Your task to perform on an android device: turn notification dots off Image 0: 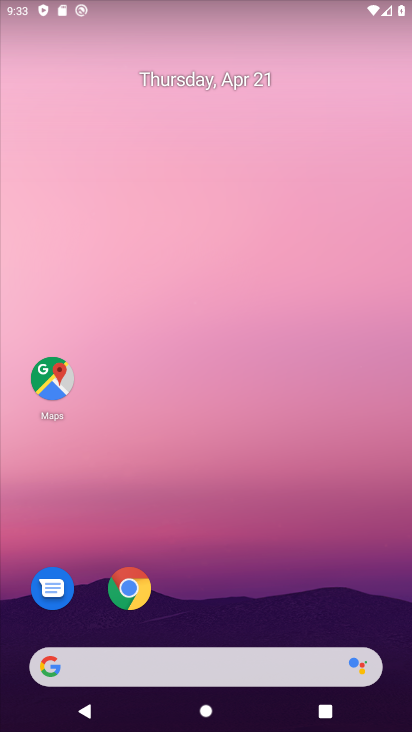
Step 0: drag from (342, 604) to (288, 0)
Your task to perform on an android device: turn notification dots off Image 1: 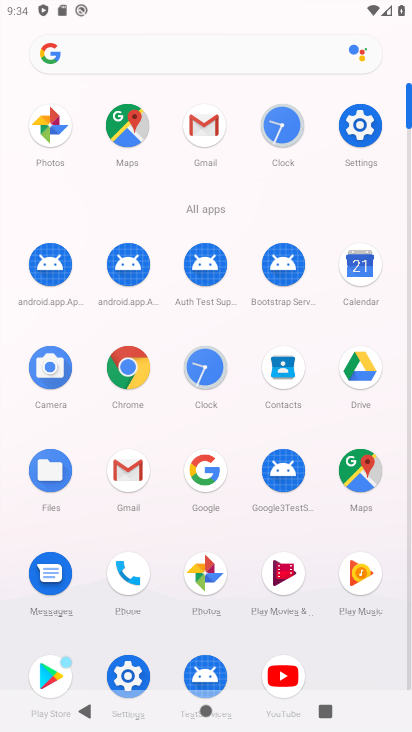
Step 1: click (125, 664)
Your task to perform on an android device: turn notification dots off Image 2: 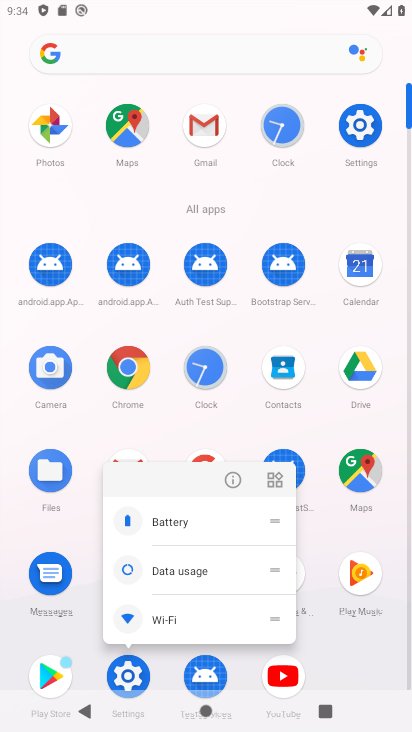
Step 2: drag from (374, 649) to (364, 296)
Your task to perform on an android device: turn notification dots off Image 3: 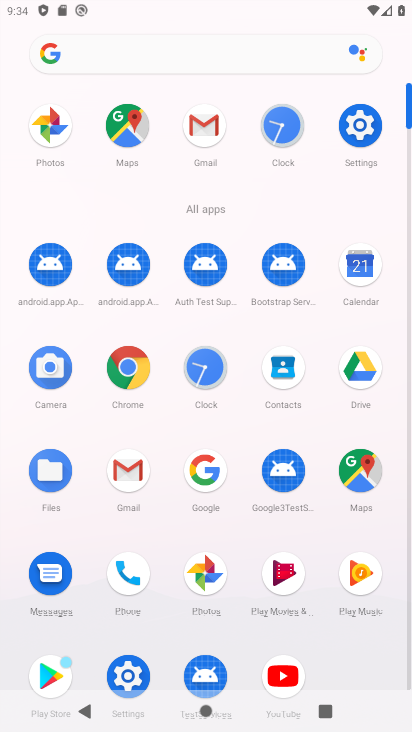
Step 3: click (123, 668)
Your task to perform on an android device: turn notification dots off Image 4: 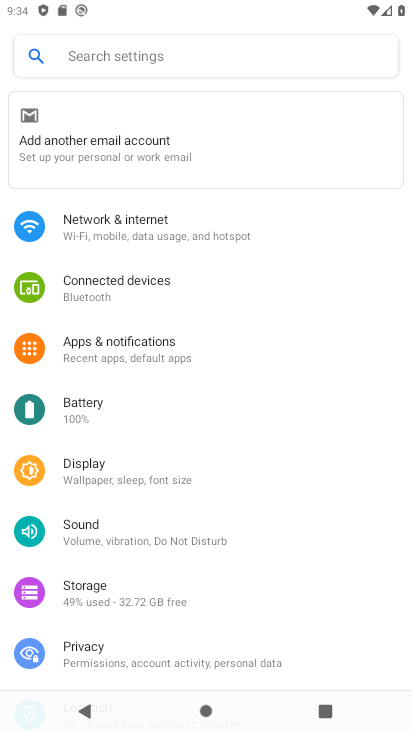
Step 4: click (151, 367)
Your task to perform on an android device: turn notification dots off Image 5: 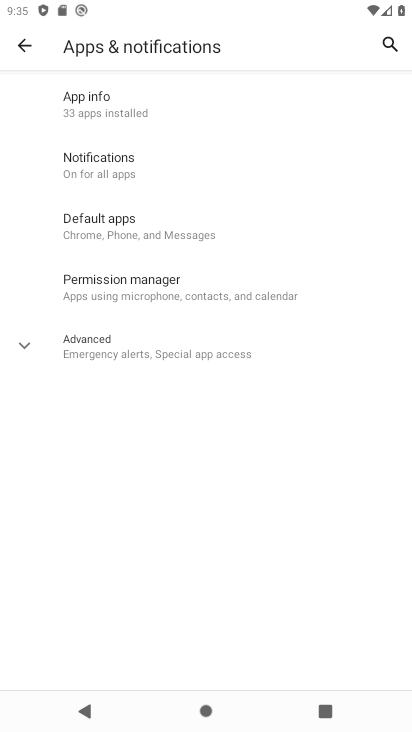
Step 5: click (135, 159)
Your task to perform on an android device: turn notification dots off Image 6: 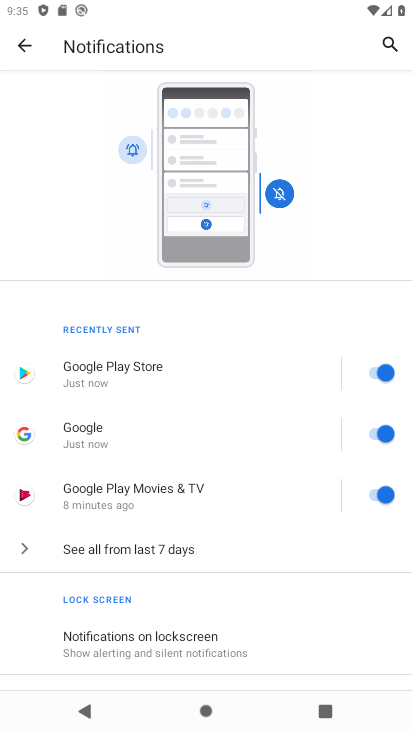
Step 6: drag from (124, 587) to (133, 224)
Your task to perform on an android device: turn notification dots off Image 7: 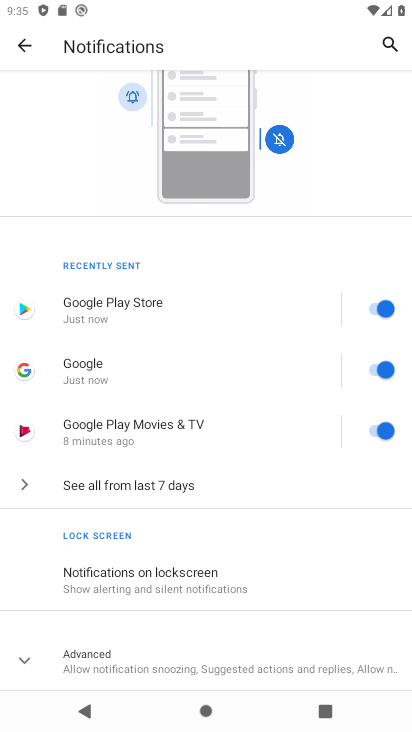
Step 7: click (149, 655)
Your task to perform on an android device: turn notification dots off Image 8: 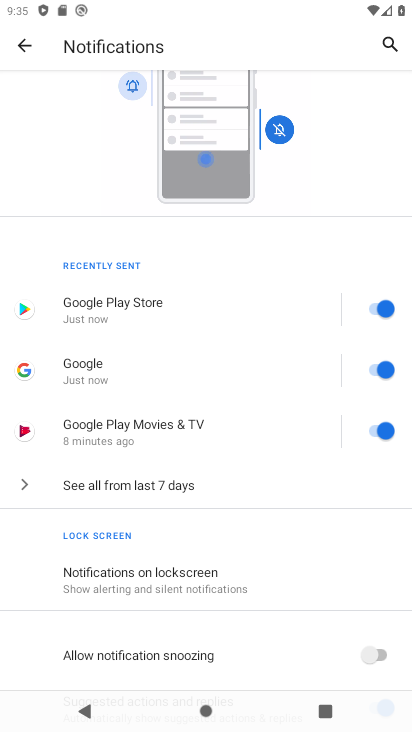
Step 8: drag from (182, 641) to (179, 165)
Your task to perform on an android device: turn notification dots off Image 9: 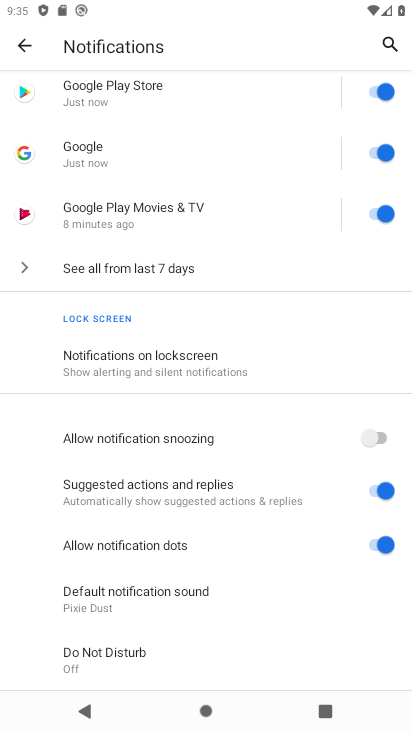
Step 9: click (360, 537)
Your task to perform on an android device: turn notification dots off Image 10: 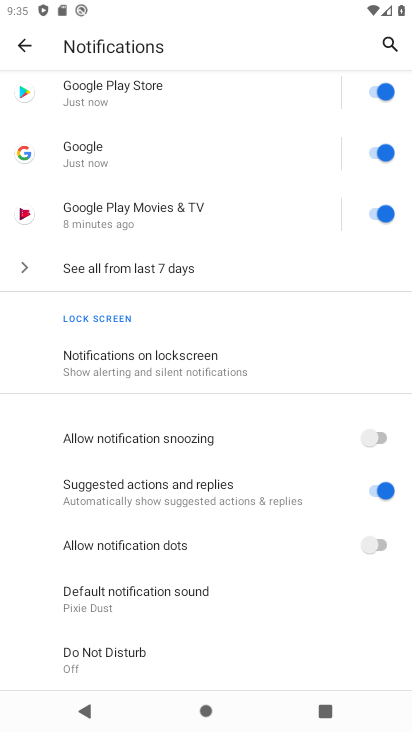
Step 10: task complete